Your task to perform on an android device: turn off priority inbox in the gmail app Image 0: 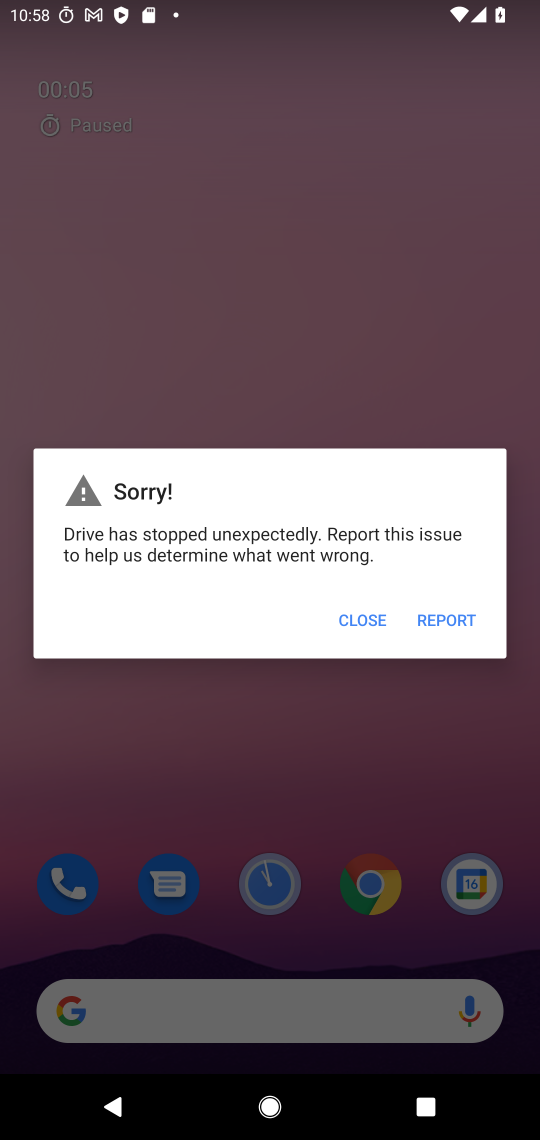
Step 0: press home button
Your task to perform on an android device: turn off priority inbox in the gmail app Image 1: 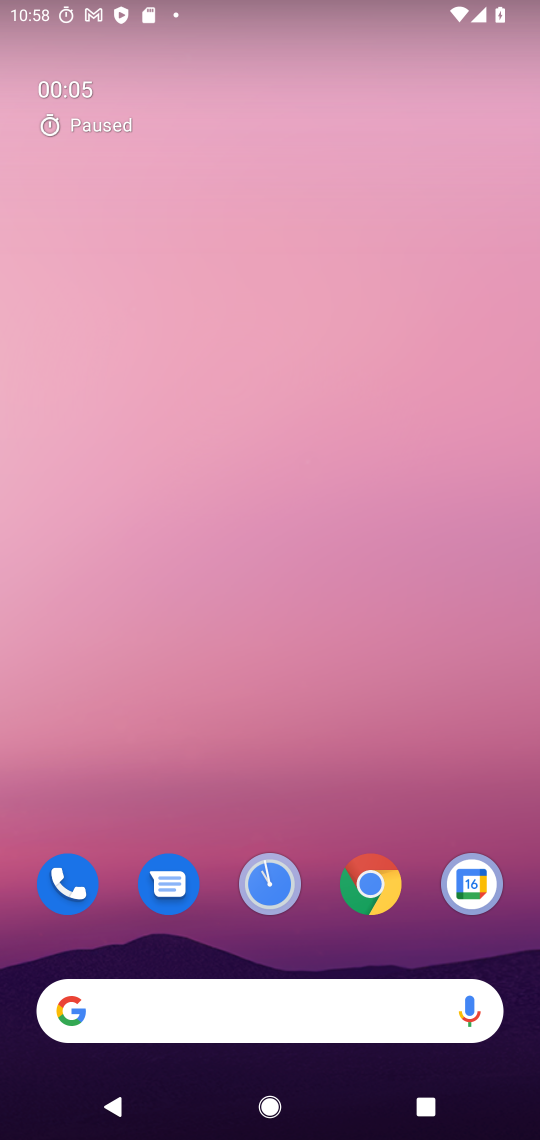
Step 1: click (214, 938)
Your task to perform on an android device: turn off priority inbox in the gmail app Image 2: 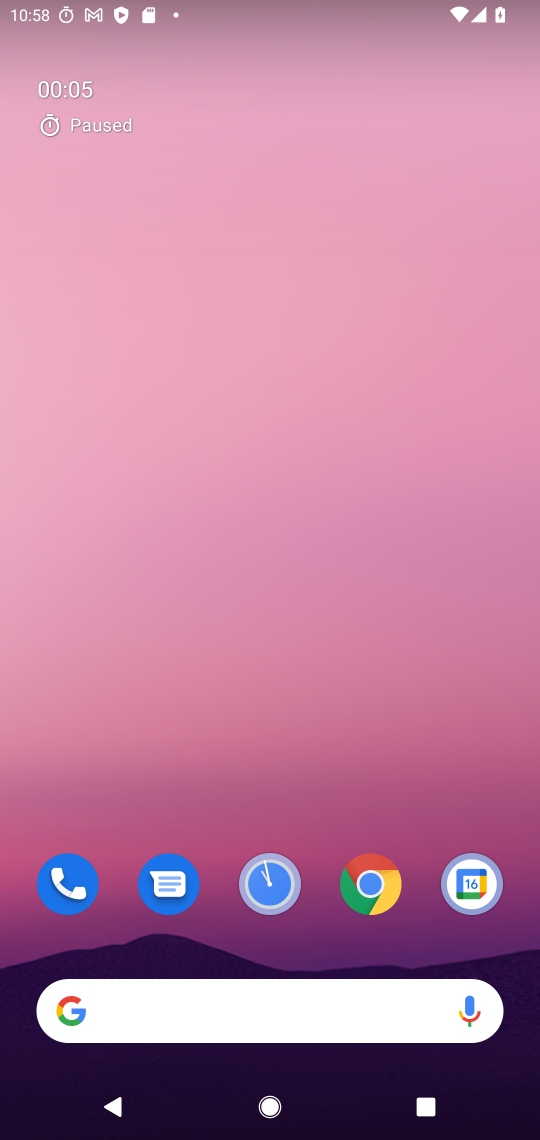
Step 2: drag from (226, 877) to (150, 92)
Your task to perform on an android device: turn off priority inbox in the gmail app Image 3: 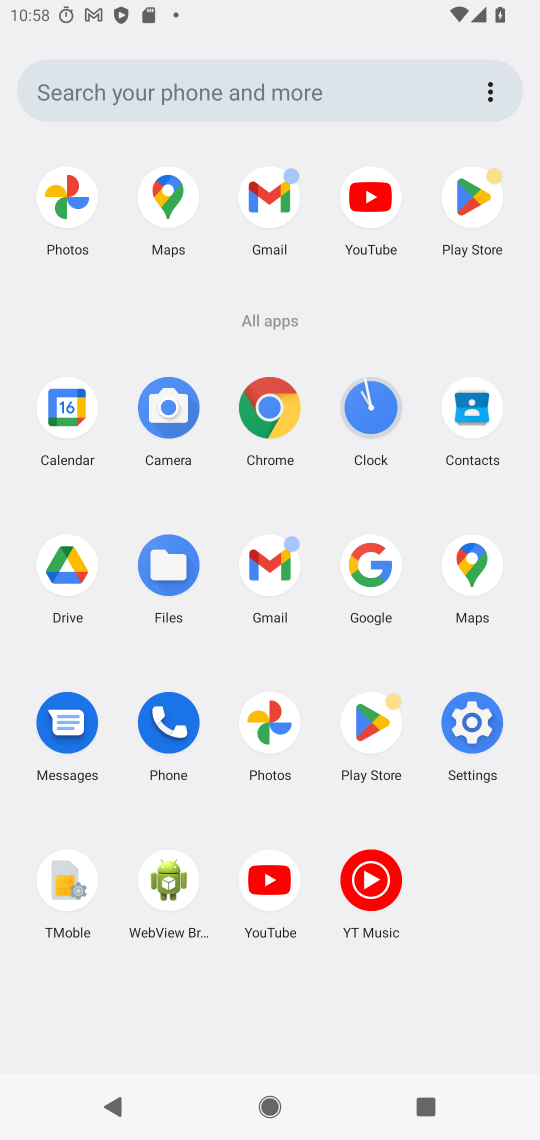
Step 3: click (271, 196)
Your task to perform on an android device: turn off priority inbox in the gmail app Image 4: 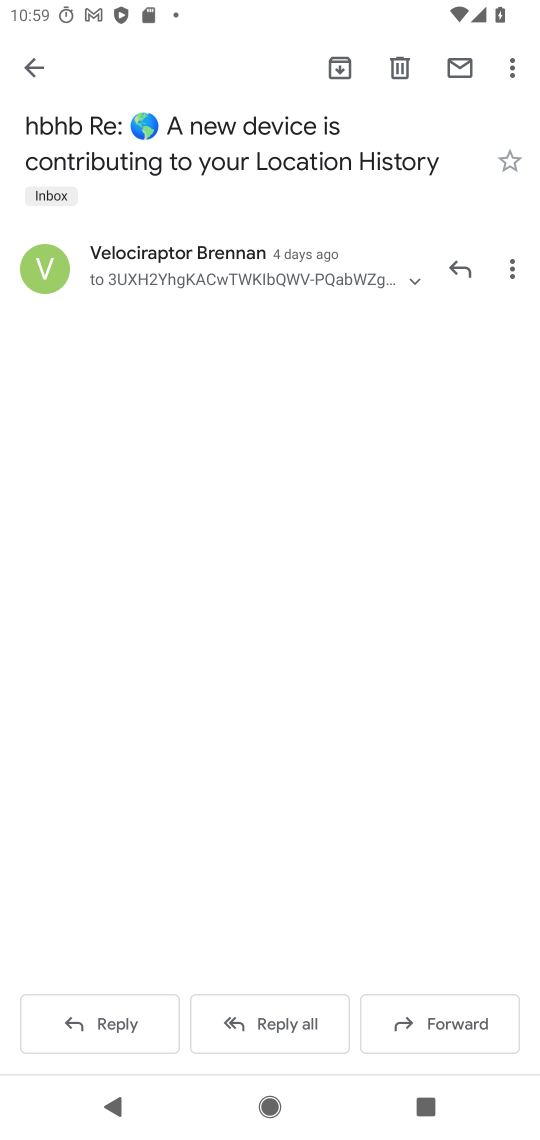
Step 4: click (28, 72)
Your task to perform on an android device: turn off priority inbox in the gmail app Image 5: 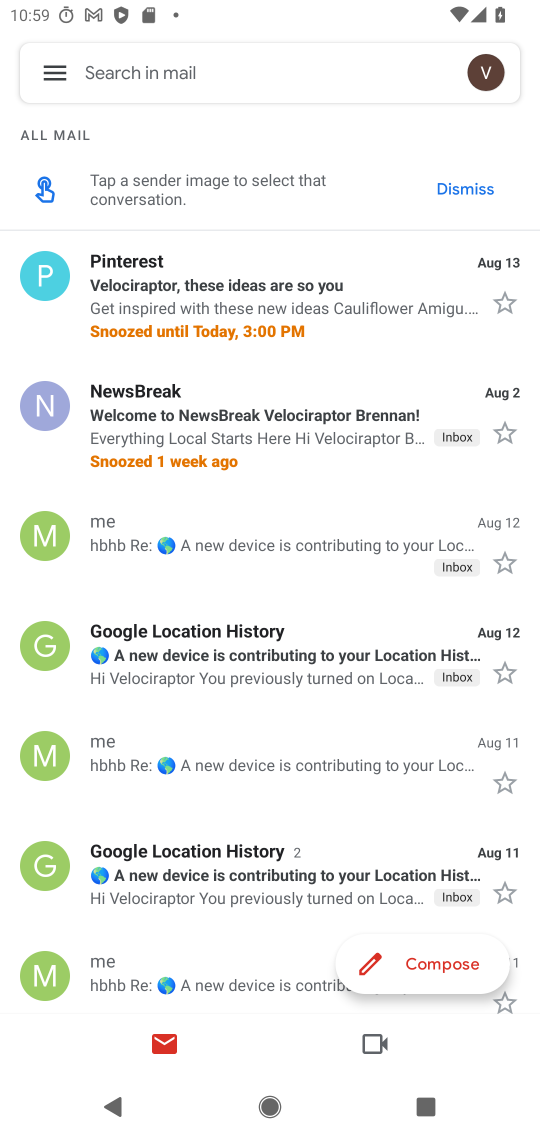
Step 5: click (55, 72)
Your task to perform on an android device: turn off priority inbox in the gmail app Image 6: 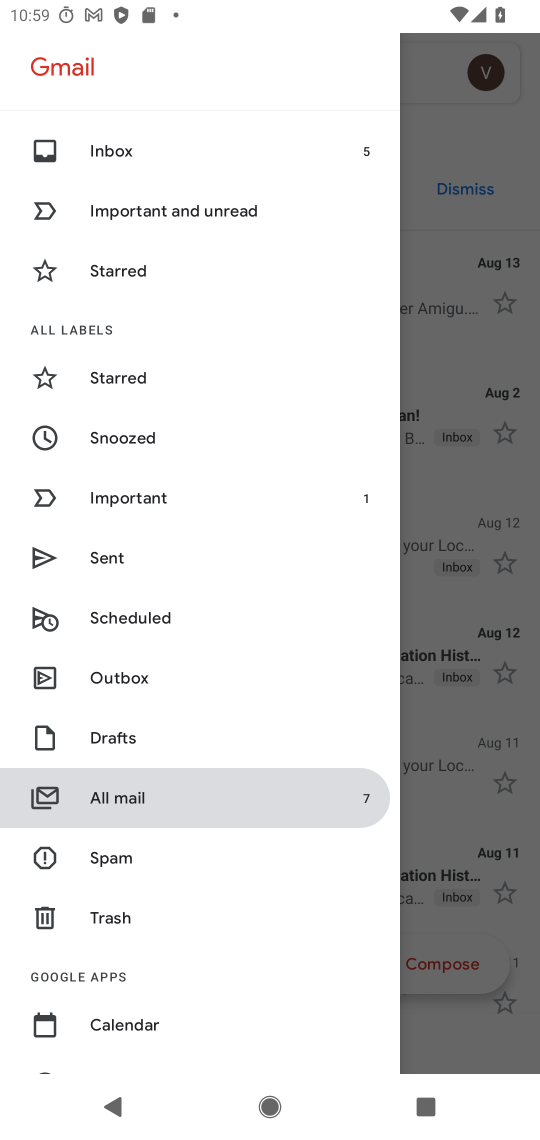
Step 6: drag from (138, 886) to (138, 665)
Your task to perform on an android device: turn off priority inbox in the gmail app Image 7: 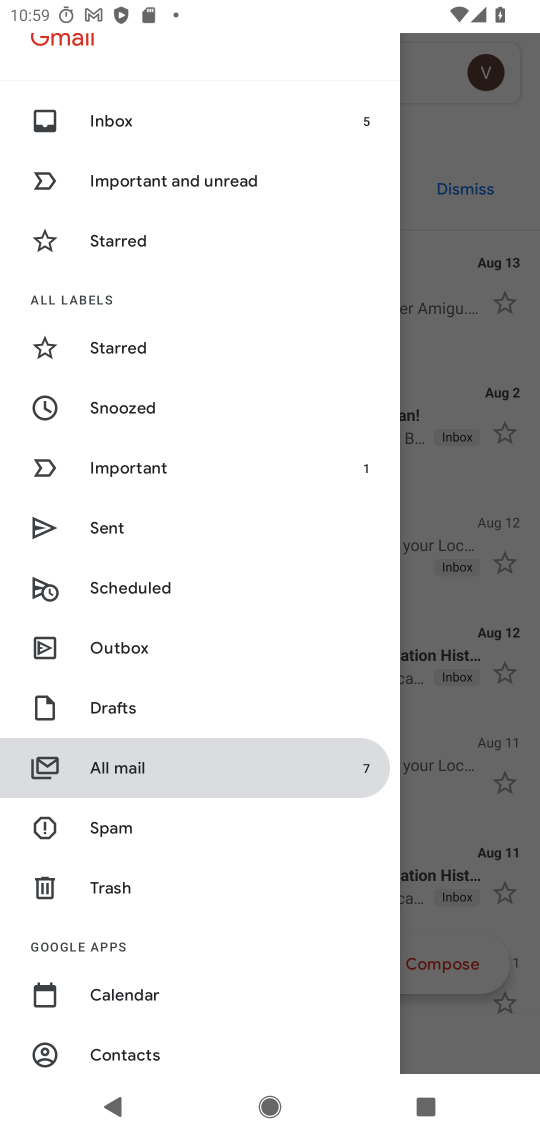
Step 7: drag from (167, 769) to (240, 346)
Your task to perform on an android device: turn off priority inbox in the gmail app Image 8: 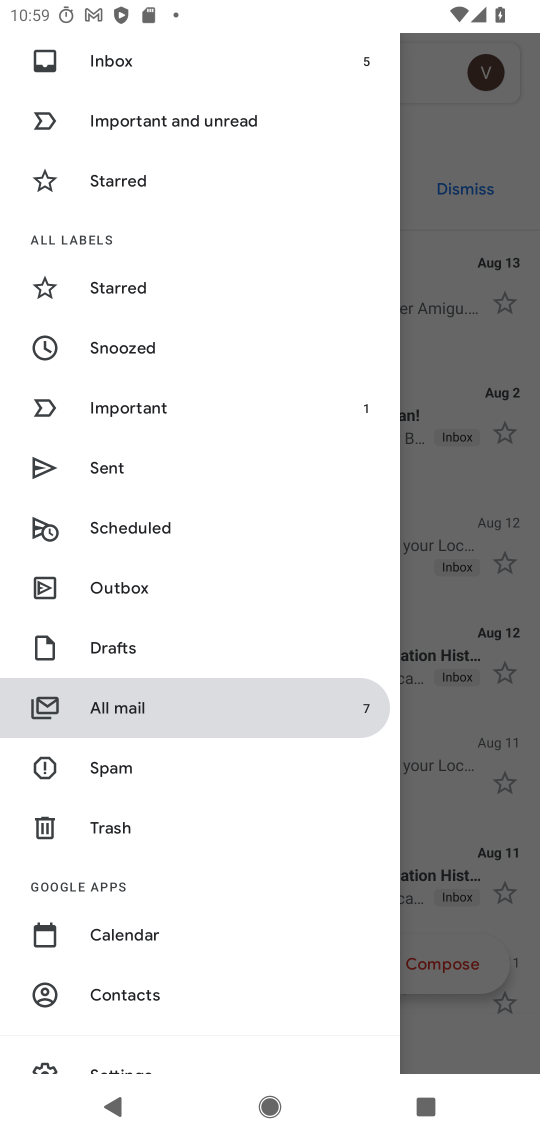
Step 8: click (181, 951)
Your task to perform on an android device: turn off priority inbox in the gmail app Image 9: 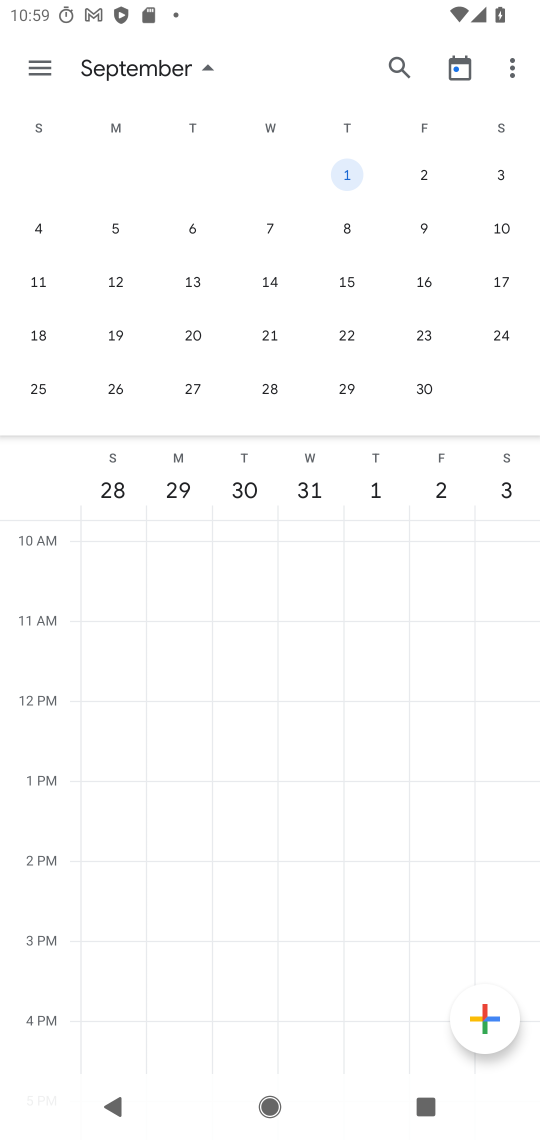
Step 9: press home button
Your task to perform on an android device: turn off priority inbox in the gmail app Image 10: 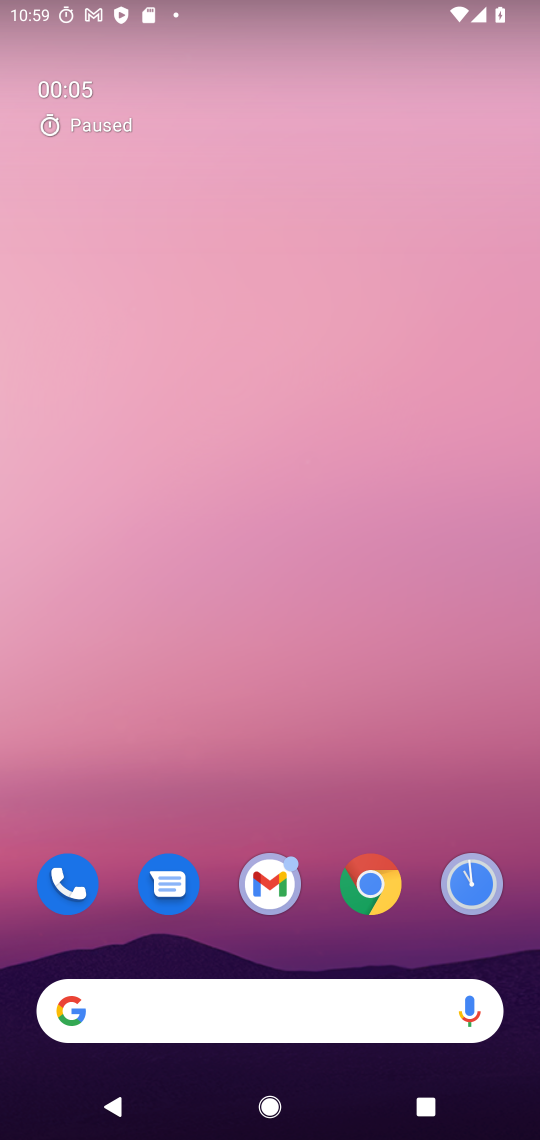
Step 10: click (213, 44)
Your task to perform on an android device: turn off priority inbox in the gmail app Image 11: 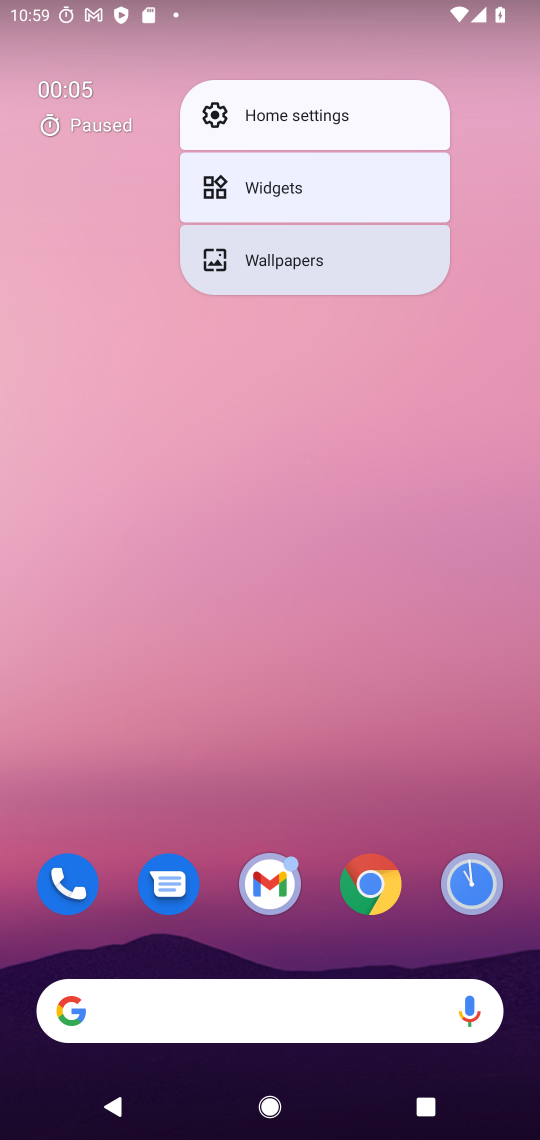
Step 11: drag from (239, 840) to (206, 173)
Your task to perform on an android device: turn off priority inbox in the gmail app Image 12: 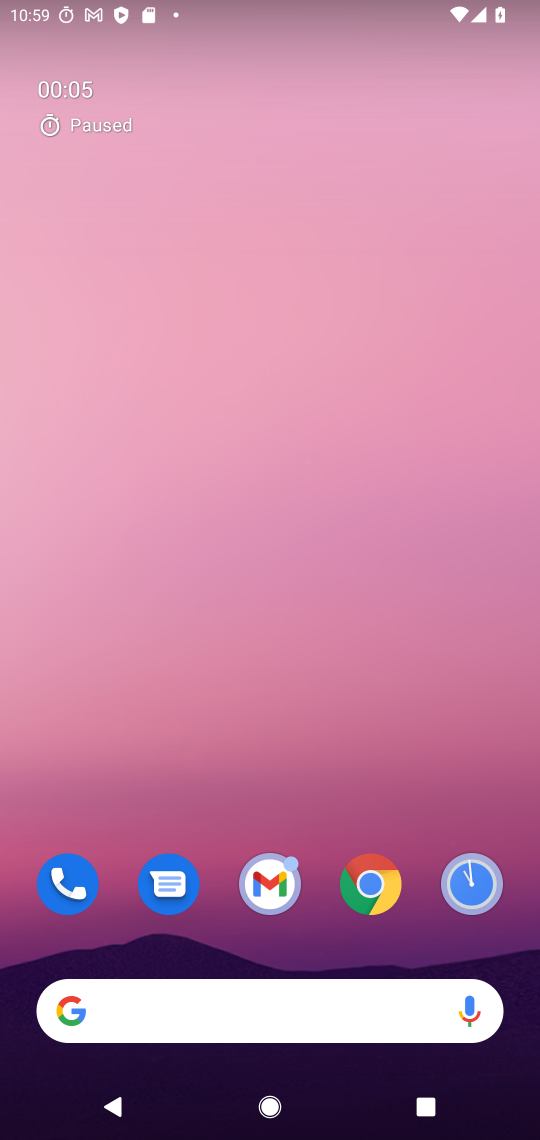
Step 12: click (283, 961)
Your task to perform on an android device: turn off priority inbox in the gmail app Image 13: 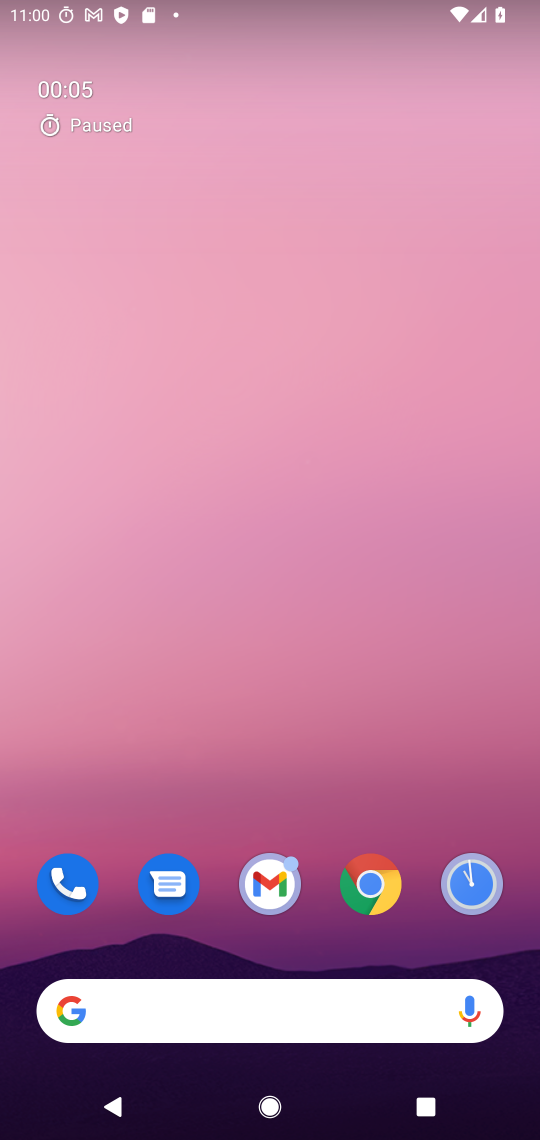
Step 13: click (229, 934)
Your task to perform on an android device: turn off priority inbox in the gmail app Image 14: 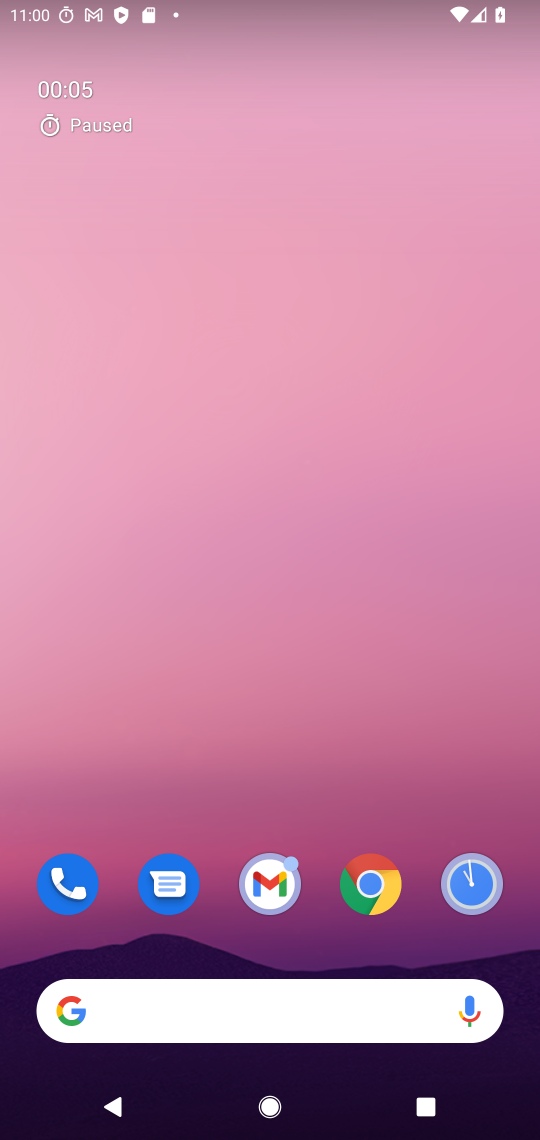
Step 14: click (262, 878)
Your task to perform on an android device: turn off priority inbox in the gmail app Image 15: 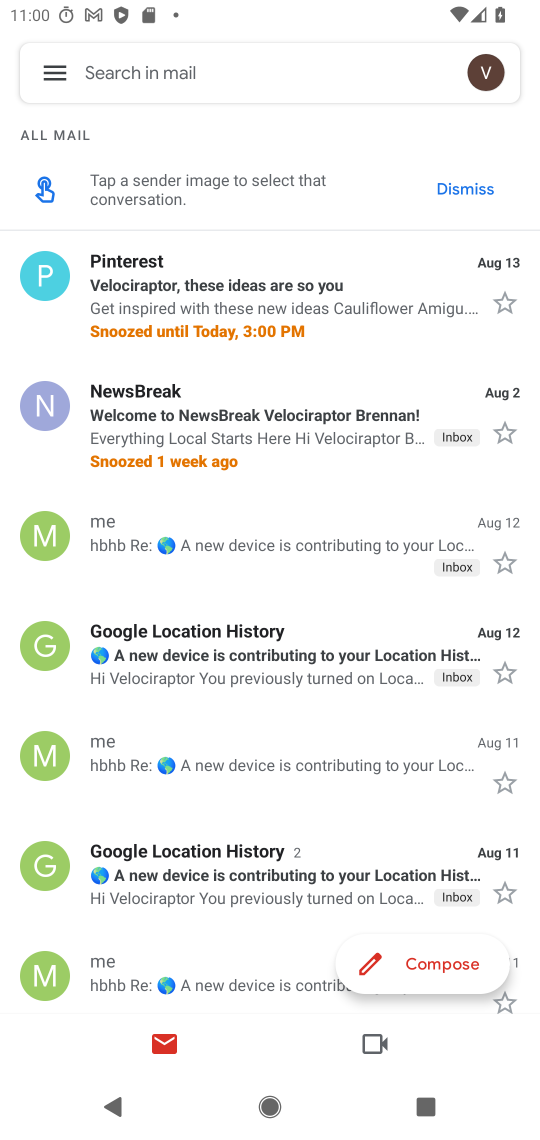
Step 15: click (61, 71)
Your task to perform on an android device: turn off priority inbox in the gmail app Image 16: 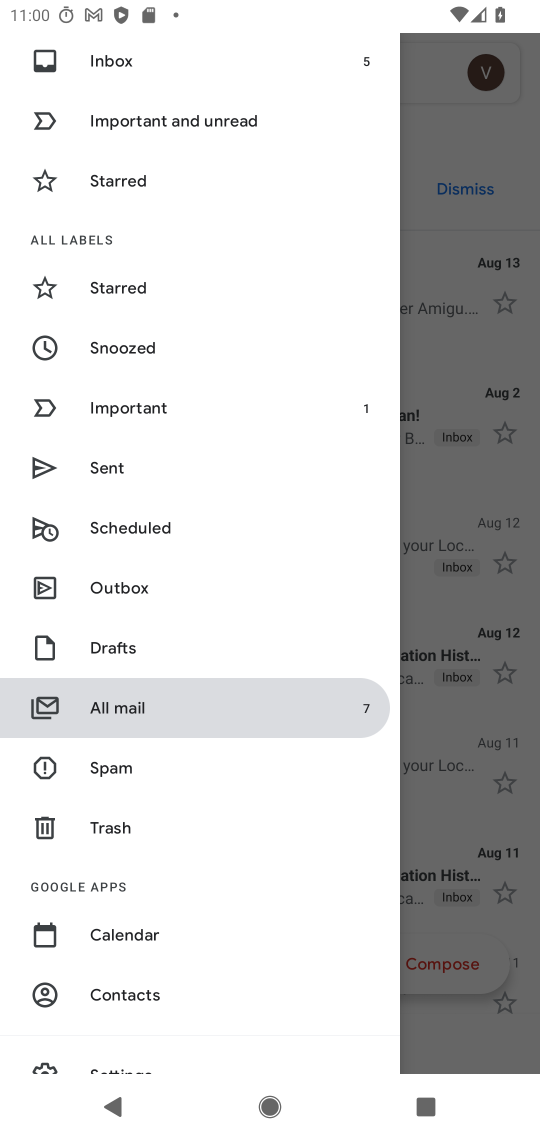
Step 16: drag from (176, 729) to (164, 314)
Your task to perform on an android device: turn off priority inbox in the gmail app Image 17: 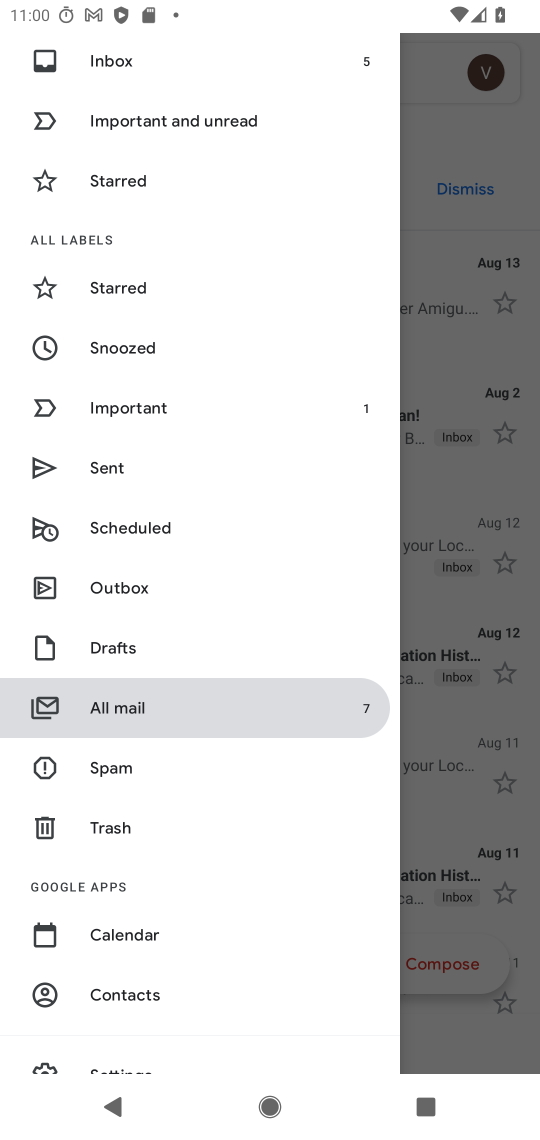
Step 17: drag from (180, 919) to (194, 269)
Your task to perform on an android device: turn off priority inbox in the gmail app Image 18: 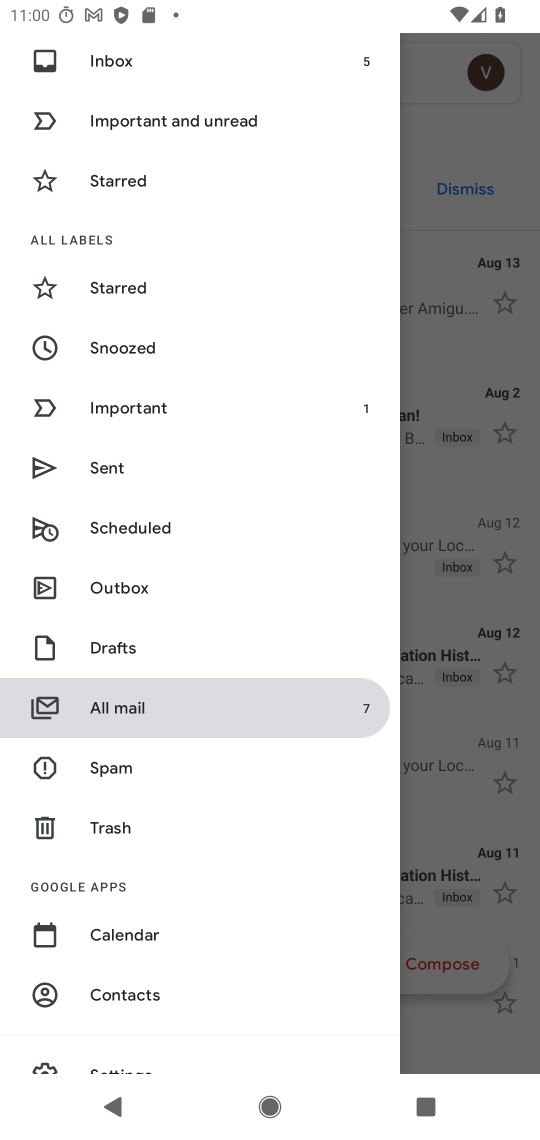
Step 18: drag from (221, 1010) to (183, 367)
Your task to perform on an android device: turn off priority inbox in the gmail app Image 19: 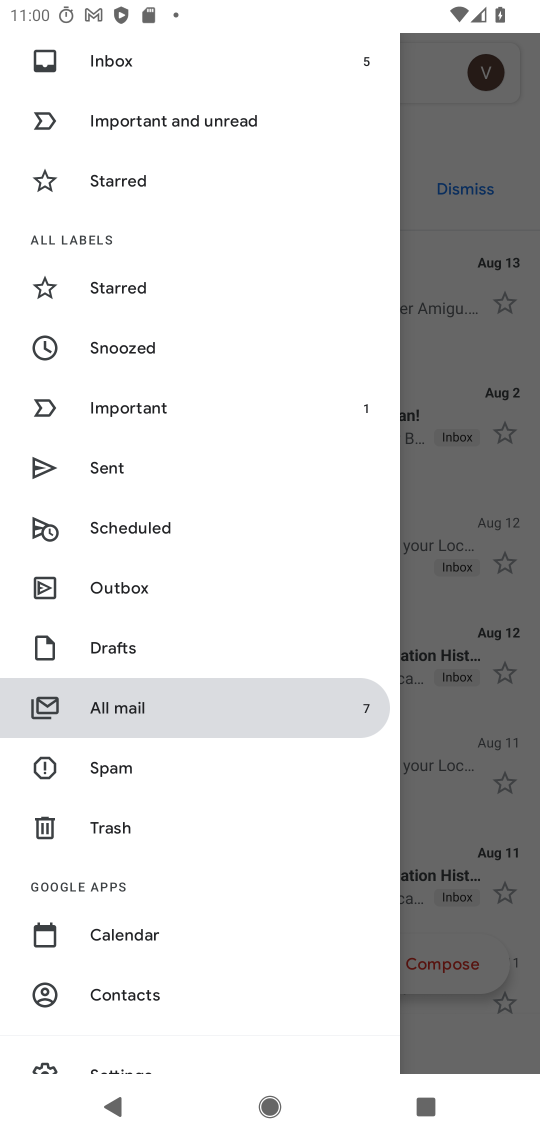
Step 19: drag from (171, 775) to (161, 244)
Your task to perform on an android device: turn off priority inbox in the gmail app Image 20: 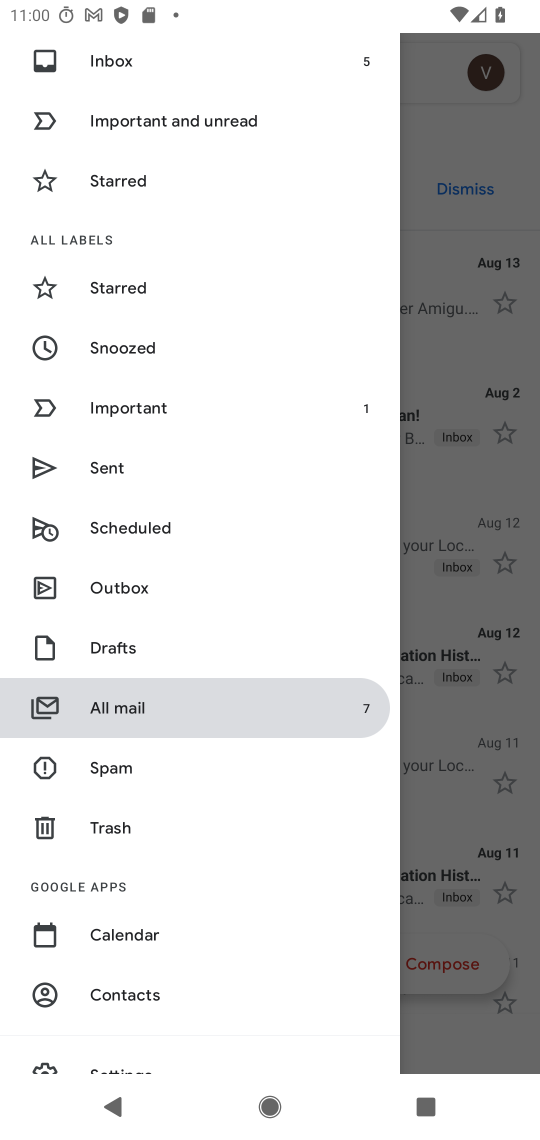
Step 20: drag from (114, 1018) to (114, 409)
Your task to perform on an android device: turn off priority inbox in the gmail app Image 21: 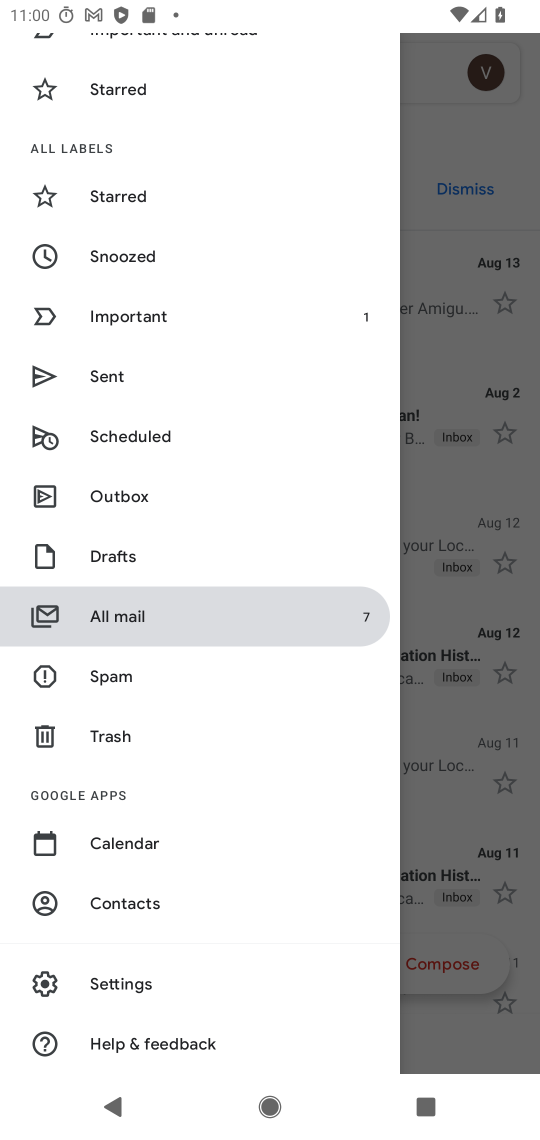
Step 21: click (113, 989)
Your task to perform on an android device: turn off priority inbox in the gmail app Image 22: 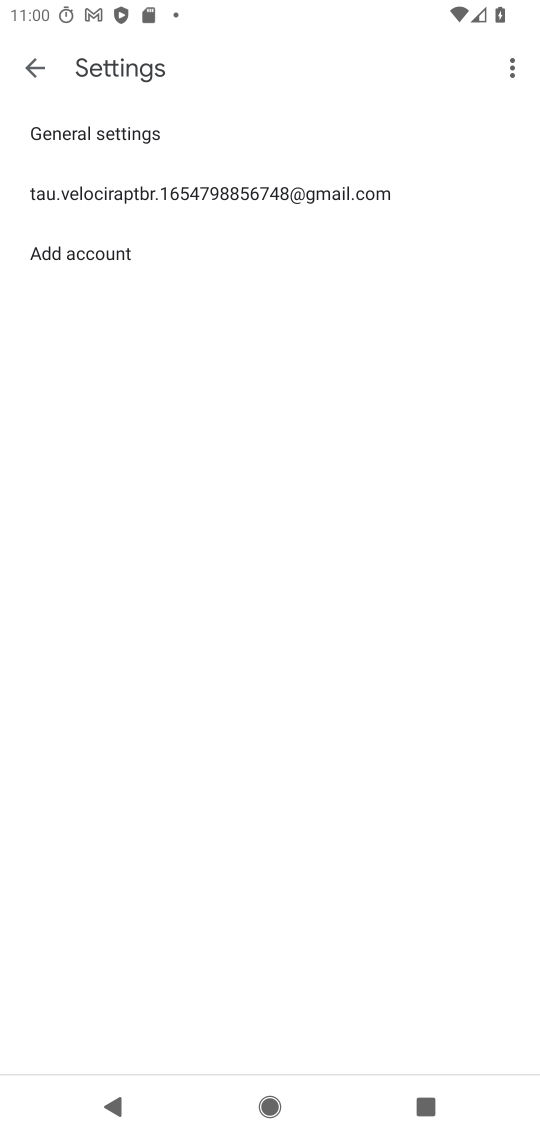
Step 22: click (164, 185)
Your task to perform on an android device: turn off priority inbox in the gmail app Image 23: 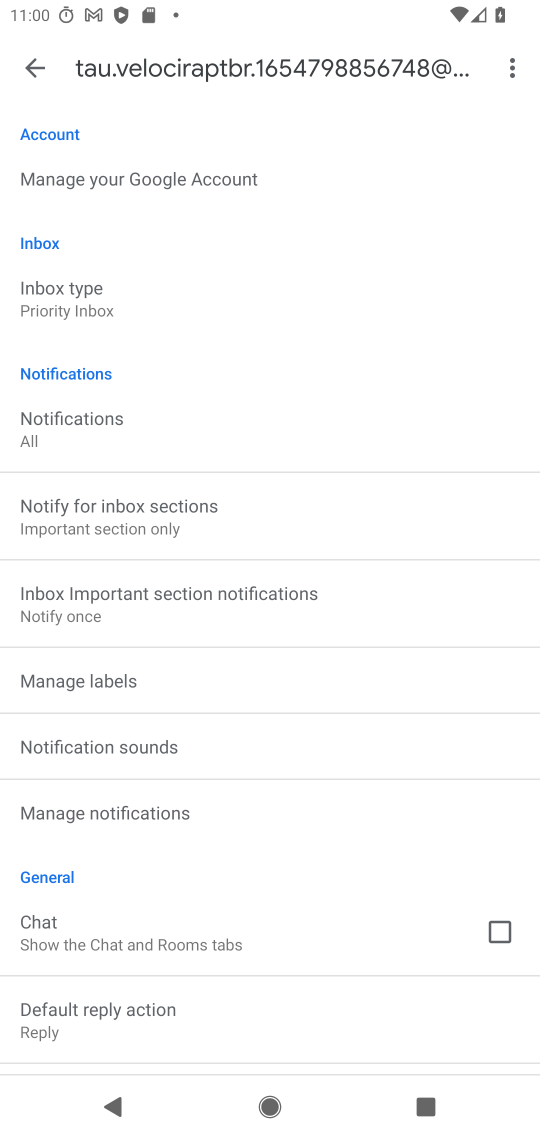
Step 23: click (71, 301)
Your task to perform on an android device: turn off priority inbox in the gmail app Image 24: 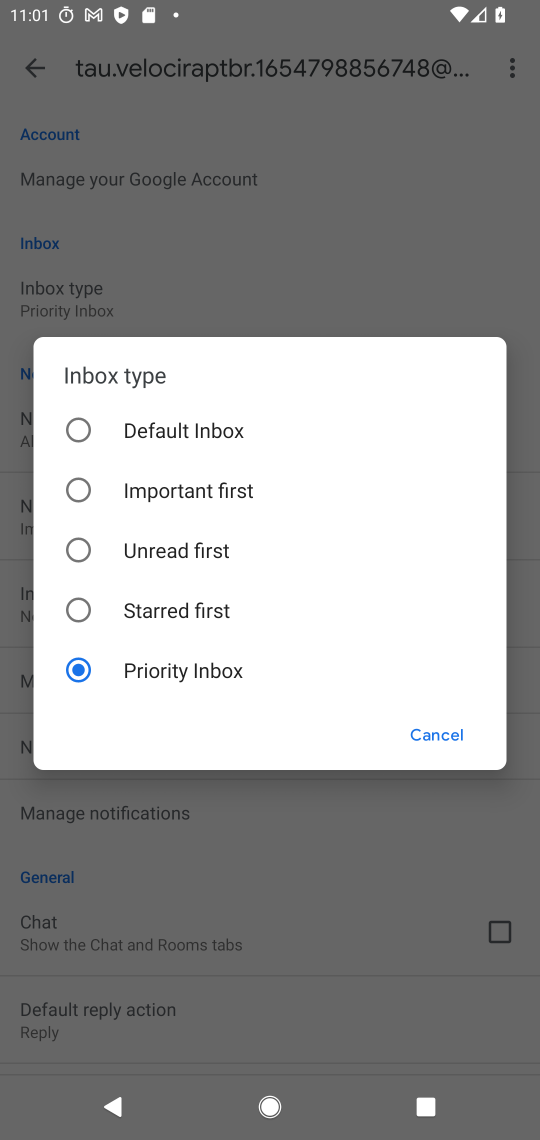
Step 24: click (87, 427)
Your task to perform on an android device: turn off priority inbox in the gmail app Image 25: 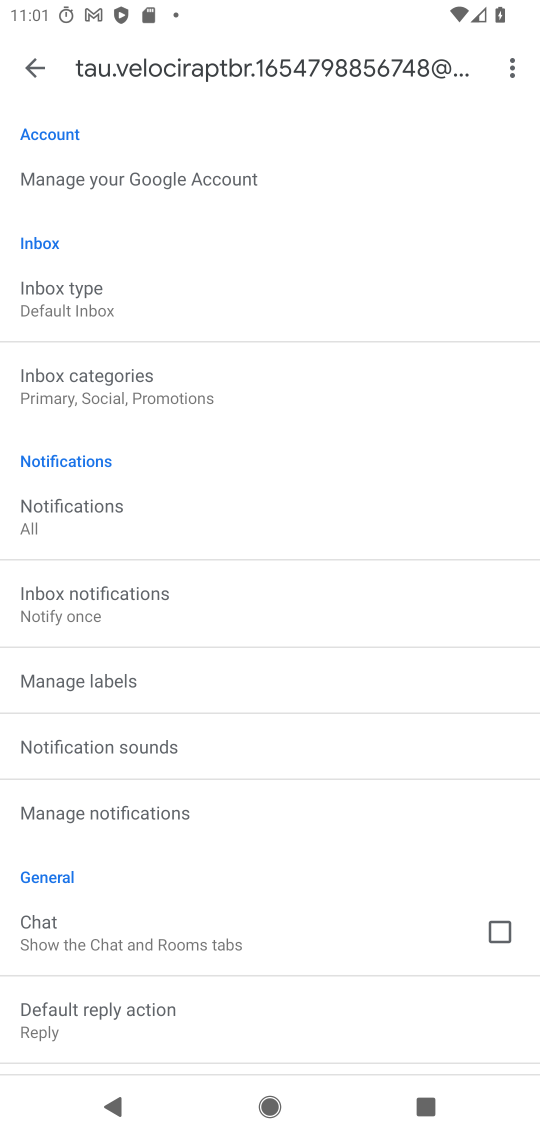
Step 25: task complete